Your task to perform on an android device: toggle sleep mode Image 0: 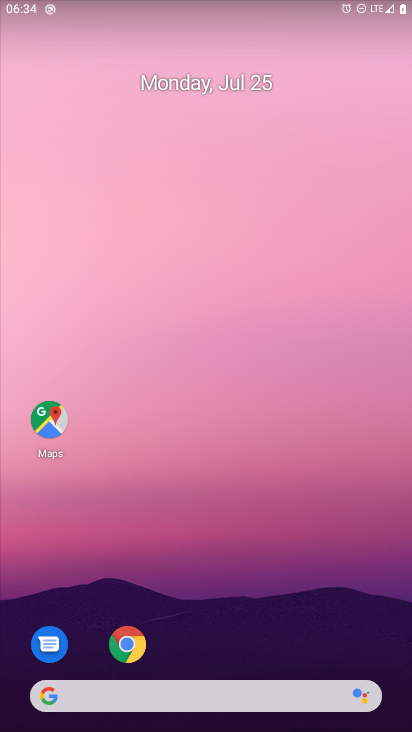
Step 0: press home button
Your task to perform on an android device: toggle sleep mode Image 1: 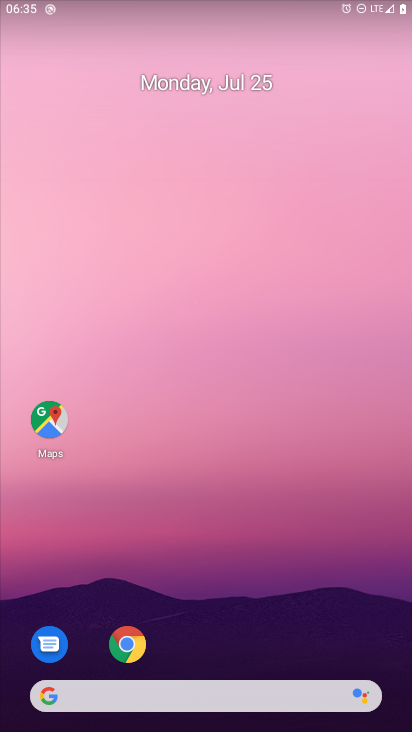
Step 1: drag from (239, 447) to (254, 159)
Your task to perform on an android device: toggle sleep mode Image 2: 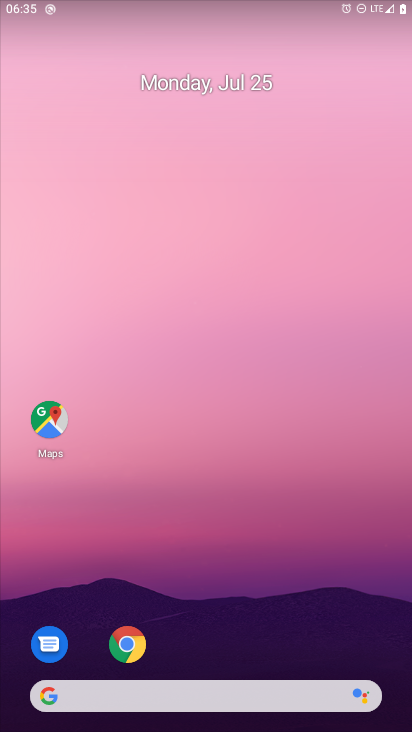
Step 2: drag from (240, 636) to (192, 111)
Your task to perform on an android device: toggle sleep mode Image 3: 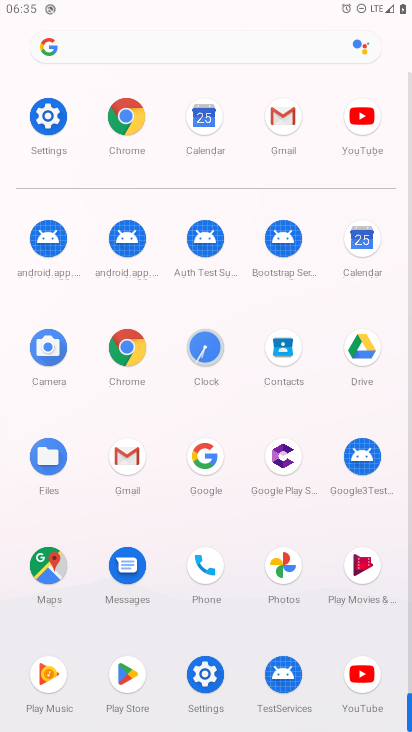
Step 3: click (55, 123)
Your task to perform on an android device: toggle sleep mode Image 4: 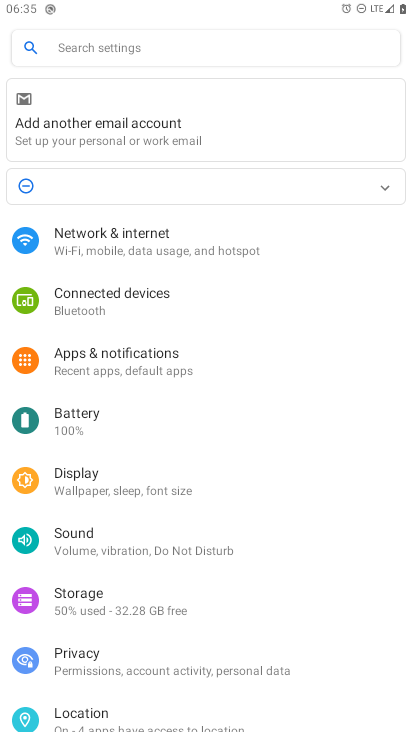
Step 4: click (97, 492)
Your task to perform on an android device: toggle sleep mode Image 5: 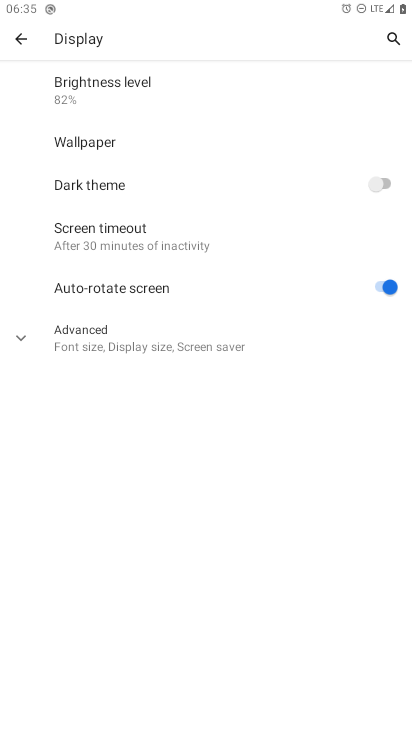
Step 5: task complete